Your task to perform on an android device: toggle data saver in the chrome app Image 0: 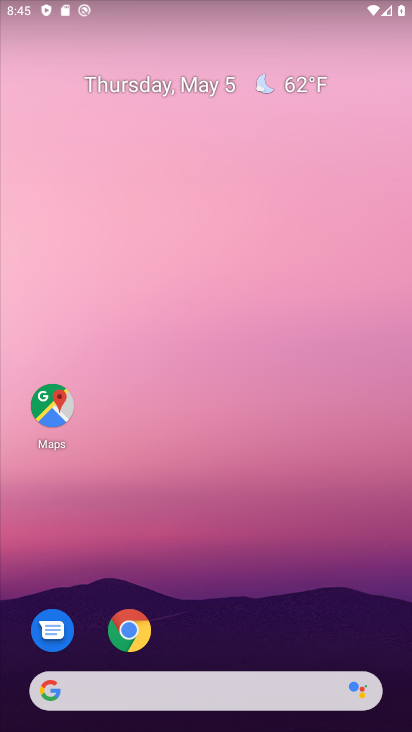
Step 0: press home button
Your task to perform on an android device: toggle data saver in the chrome app Image 1: 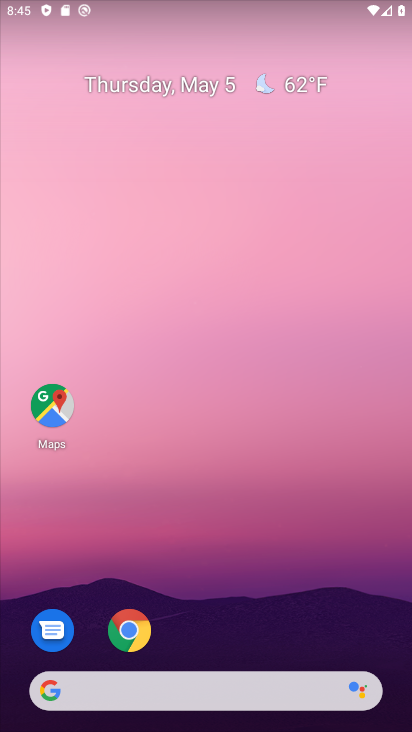
Step 1: press home button
Your task to perform on an android device: toggle data saver in the chrome app Image 2: 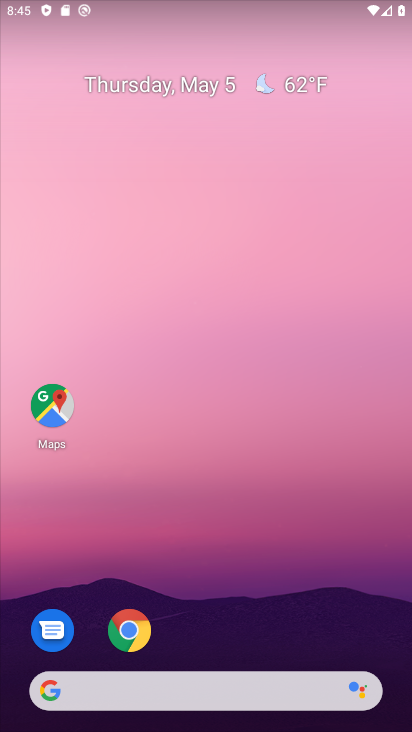
Step 2: click (136, 632)
Your task to perform on an android device: toggle data saver in the chrome app Image 3: 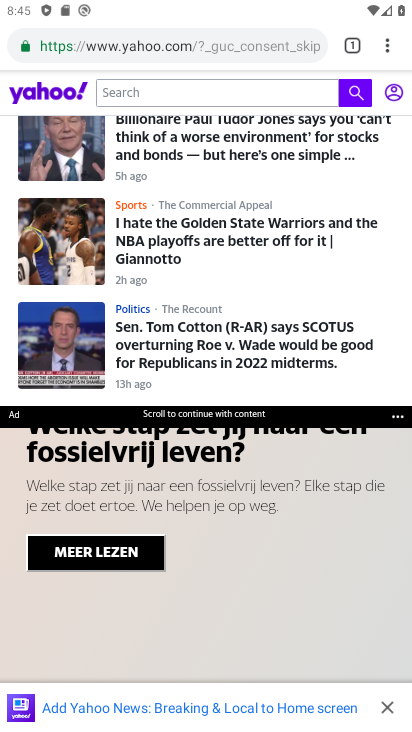
Step 3: press back button
Your task to perform on an android device: toggle data saver in the chrome app Image 4: 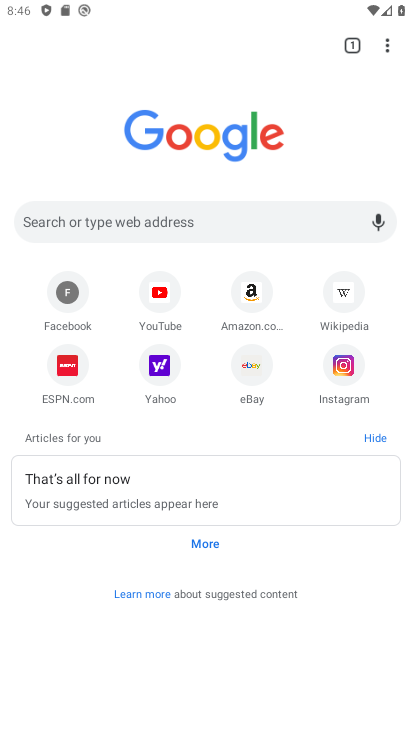
Step 4: click (387, 37)
Your task to perform on an android device: toggle data saver in the chrome app Image 5: 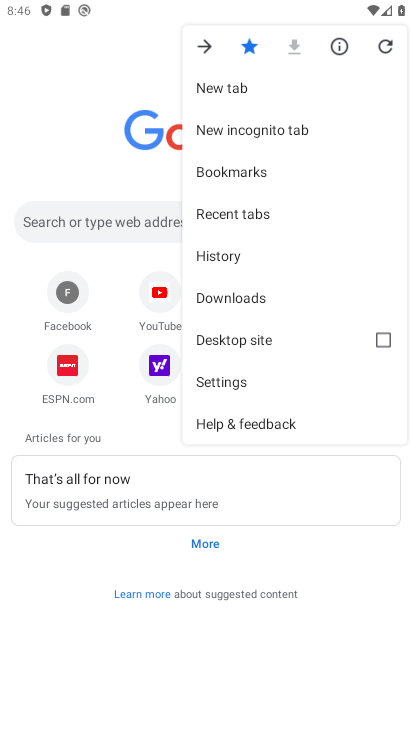
Step 5: click (256, 378)
Your task to perform on an android device: toggle data saver in the chrome app Image 6: 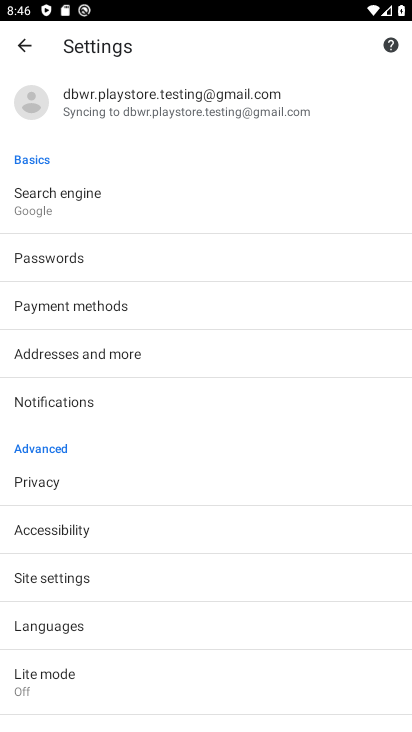
Step 6: click (85, 685)
Your task to perform on an android device: toggle data saver in the chrome app Image 7: 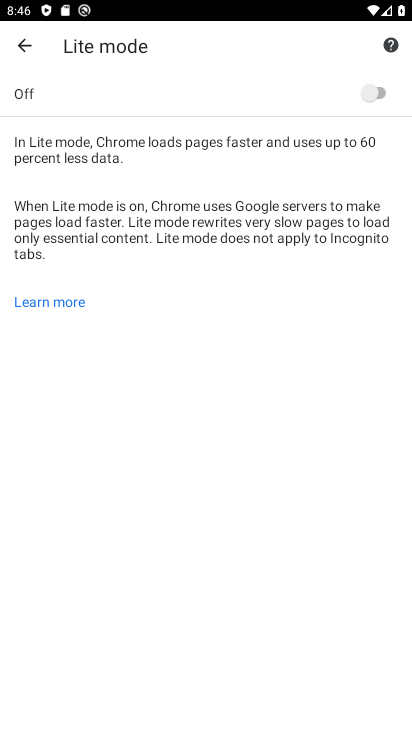
Step 7: click (375, 88)
Your task to perform on an android device: toggle data saver in the chrome app Image 8: 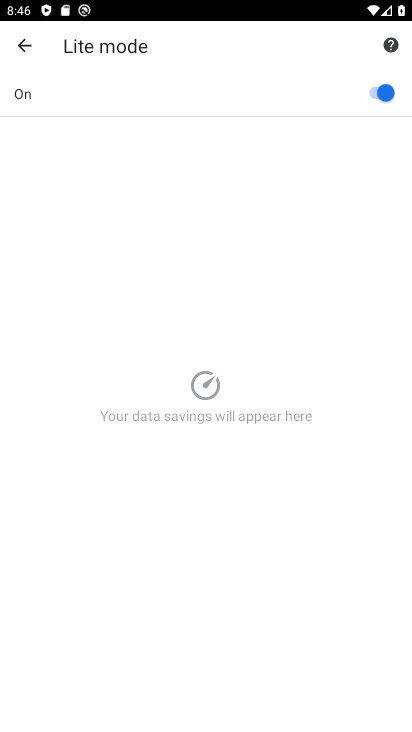
Step 8: task complete